Your task to perform on an android device: manage bookmarks in the chrome app Image 0: 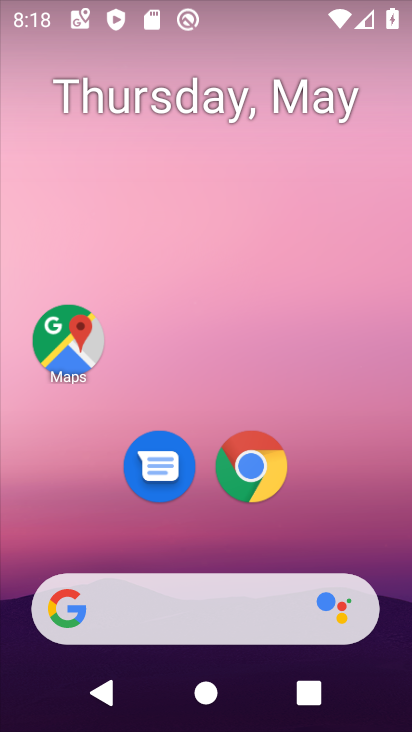
Step 0: click (250, 471)
Your task to perform on an android device: manage bookmarks in the chrome app Image 1: 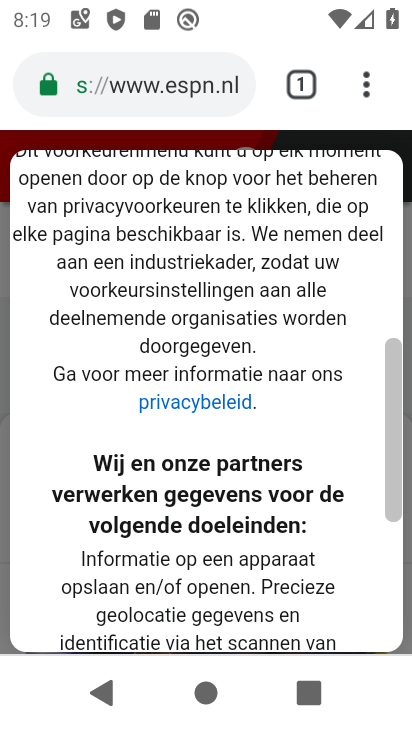
Step 1: click (364, 93)
Your task to perform on an android device: manage bookmarks in the chrome app Image 2: 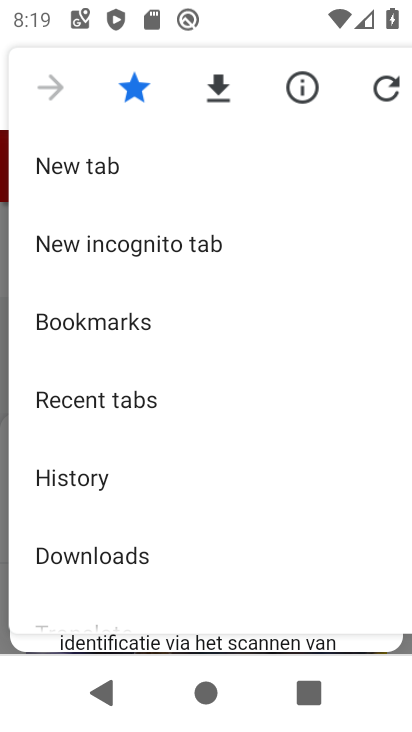
Step 2: click (83, 327)
Your task to perform on an android device: manage bookmarks in the chrome app Image 3: 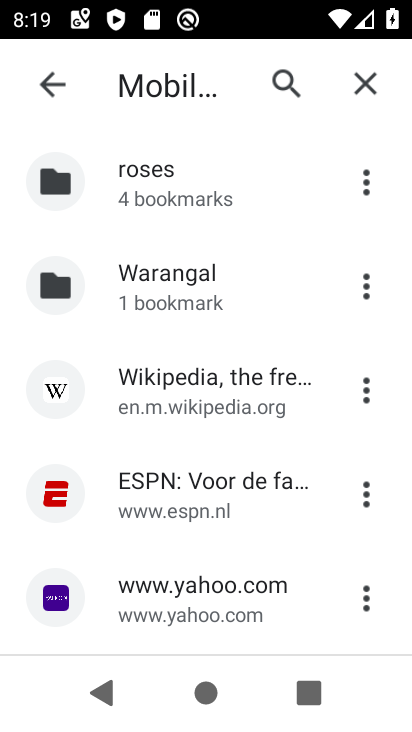
Step 3: drag from (215, 527) to (185, 331)
Your task to perform on an android device: manage bookmarks in the chrome app Image 4: 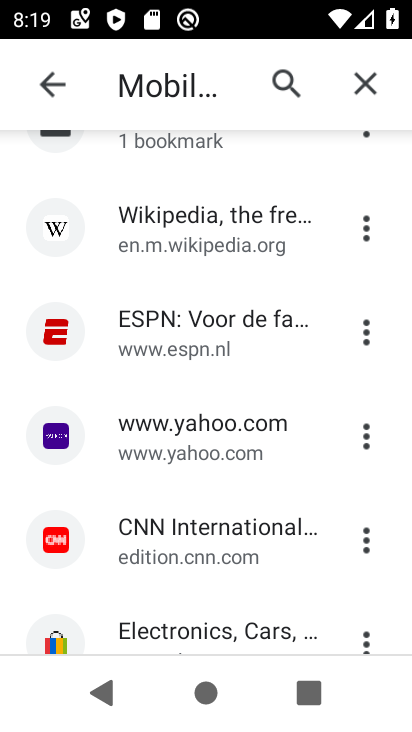
Step 4: drag from (205, 571) to (210, 351)
Your task to perform on an android device: manage bookmarks in the chrome app Image 5: 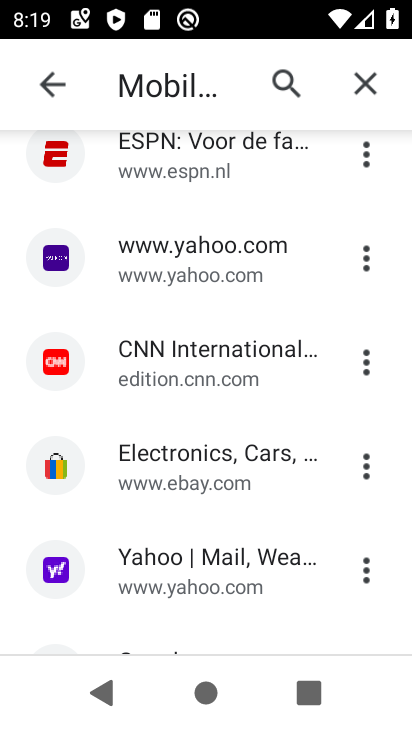
Step 5: click (366, 458)
Your task to perform on an android device: manage bookmarks in the chrome app Image 6: 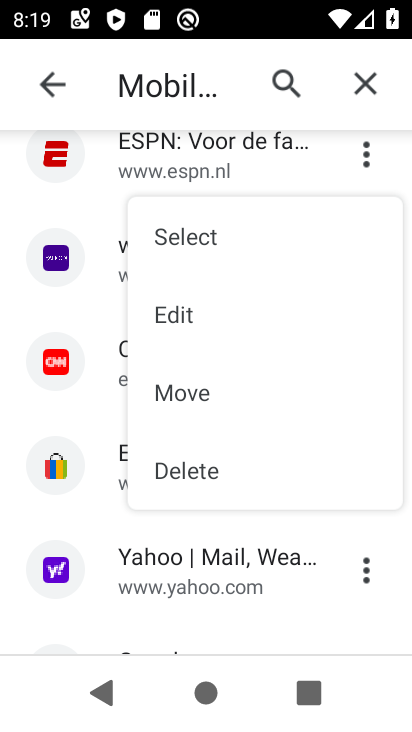
Step 6: click (185, 474)
Your task to perform on an android device: manage bookmarks in the chrome app Image 7: 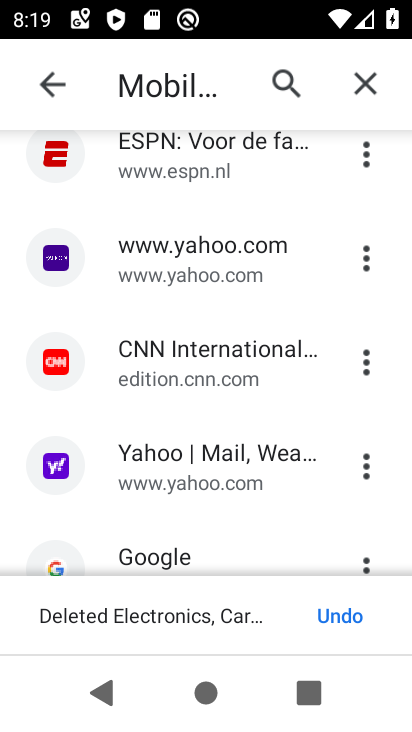
Step 7: task complete